Your task to perform on an android device: turn off sleep mode Image 0: 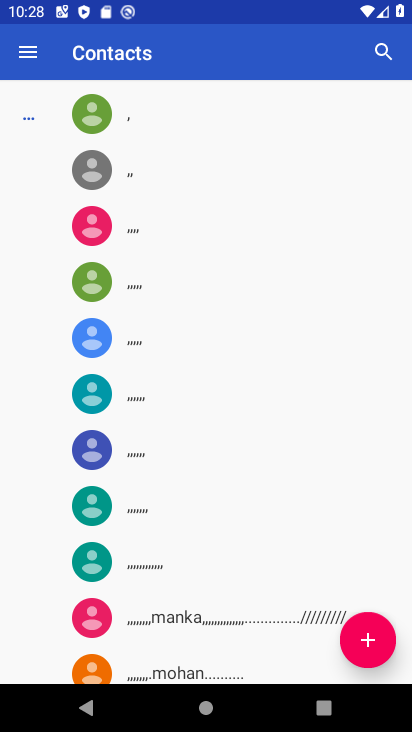
Step 0: press home button
Your task to perform on an android device: turn off sleep mode Image 1: 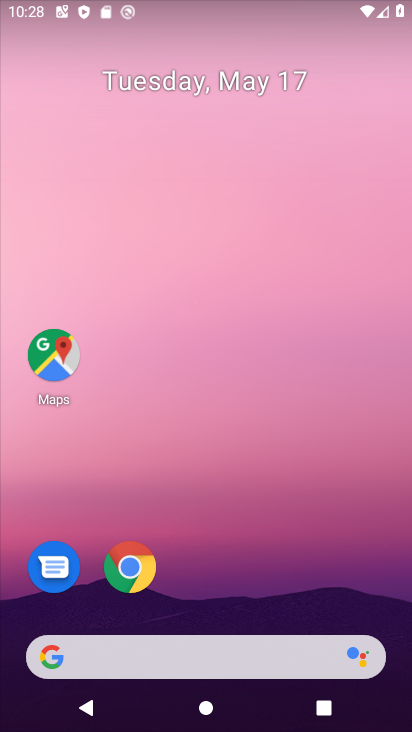
Step 1: drag from (268, 600) to (264, 141)
Your task to perform on an android device: turn off sleep mode Image 2: 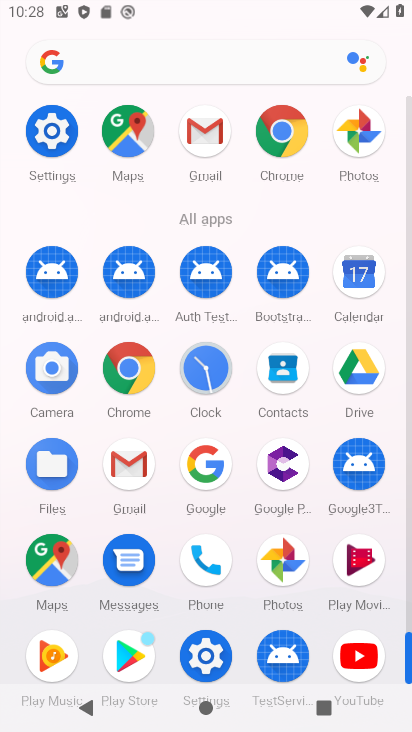
Step 2: drag from (164, 224) to (158, 48)
Your task to perform on an android device: turn off sleep mode Image 3: 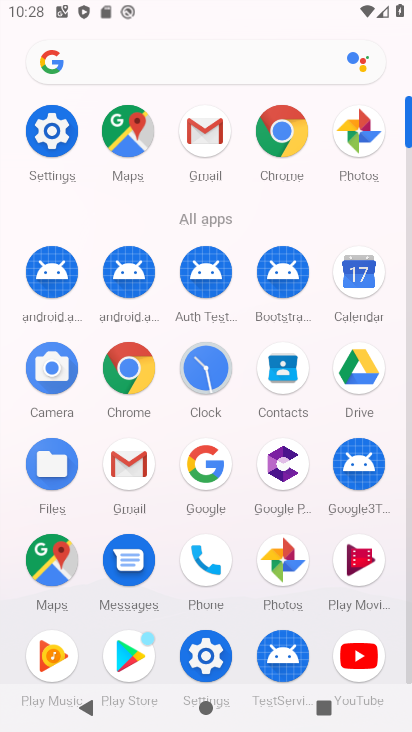
Step 3: click (214, 601)
Your task to perform on an android device: turn off sleep mode Image 4: 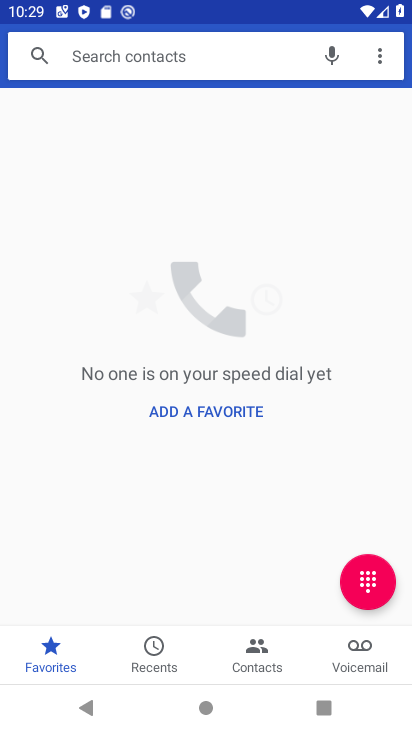
Step 4: task complete